Your task to perform on an android device: check android version Image 0: 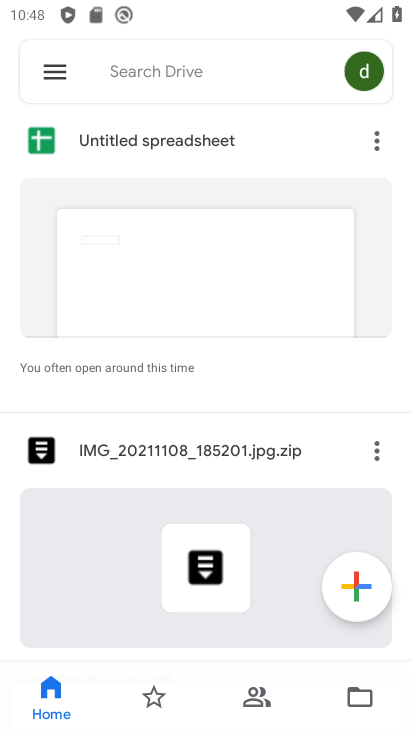
Step 0: press back button
Your task to perform on an android device: check android version Image 1: 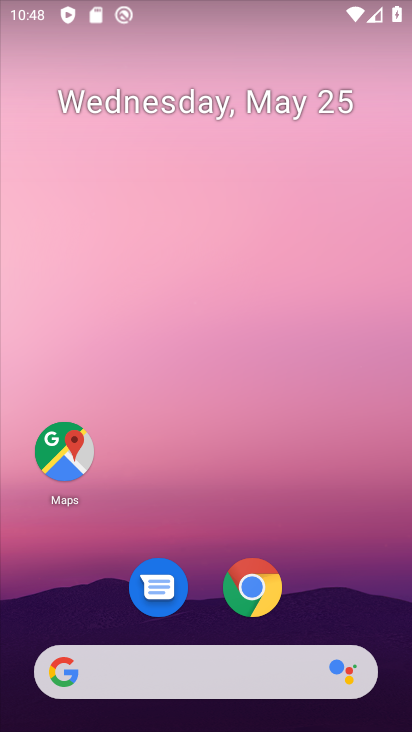
Step 1: drag from (334, 562) to (201, 30)
Your task to perform on an android device: check android version Image 2: 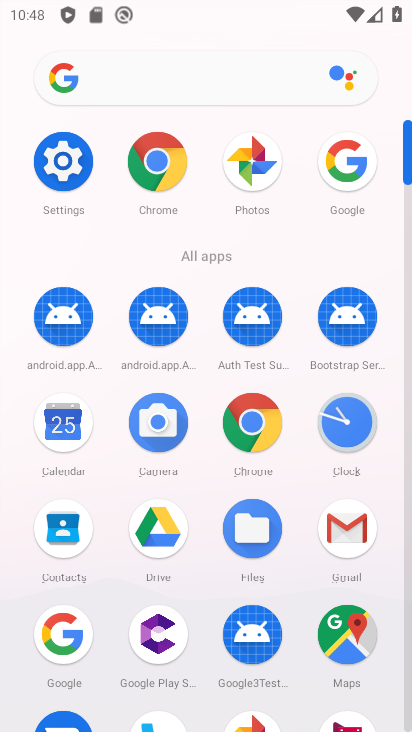
Step 2: click (58, 159)
Your task to perform on an android device: check android version Image 3: 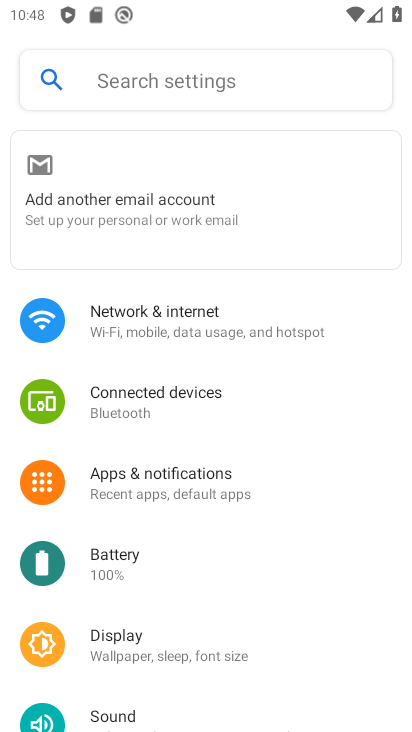
Step 3: drag from (254, 581) to (232, 194)
Your task to perform on an android device: check android version Image 4: 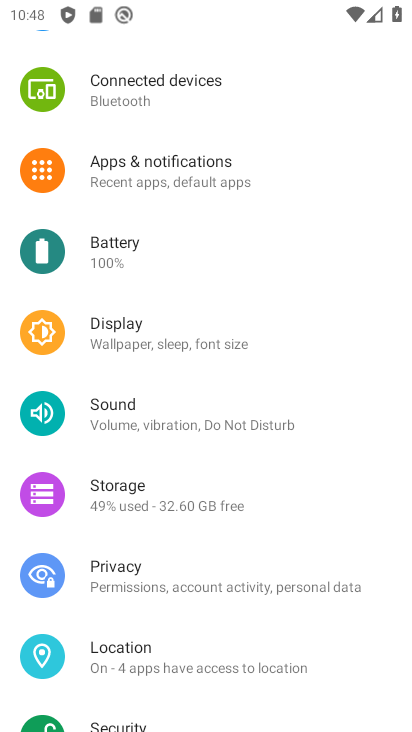
Step 4: drag from (191, 593) to (181, 143)
Your task to perform on an android device: check android version Image 5: 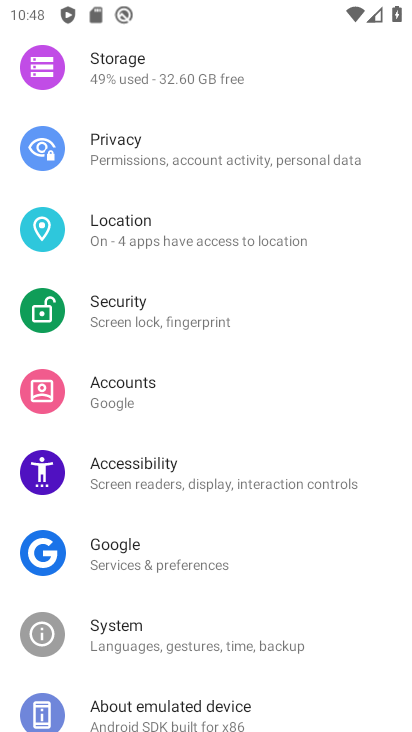
Step 5: drag from (221, 615) to (244, 70)
Your task to perform on an android device: check android version Image 6: 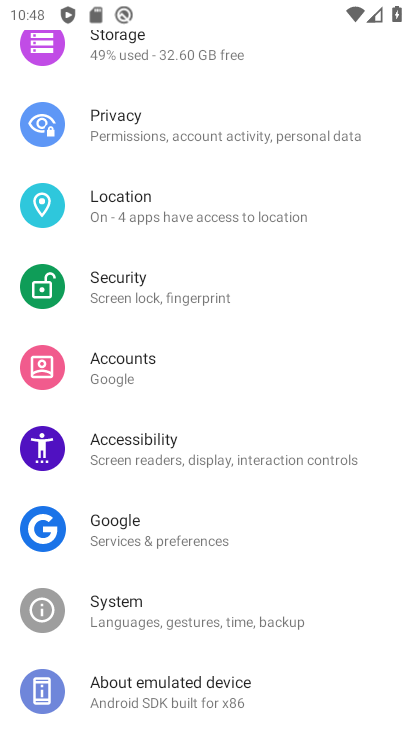
Step 6: click (156, 678)
Your task to perform on an android device: check android version Image 7: 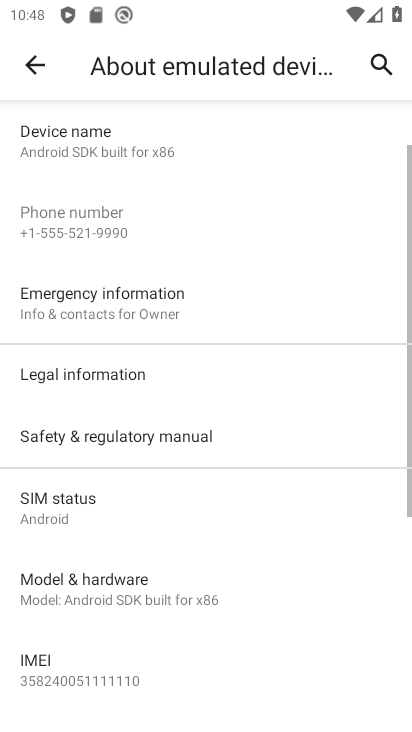
Step 7: task complete